Your task to perform on an android device: toggle pop-ups in chrome Image 0: 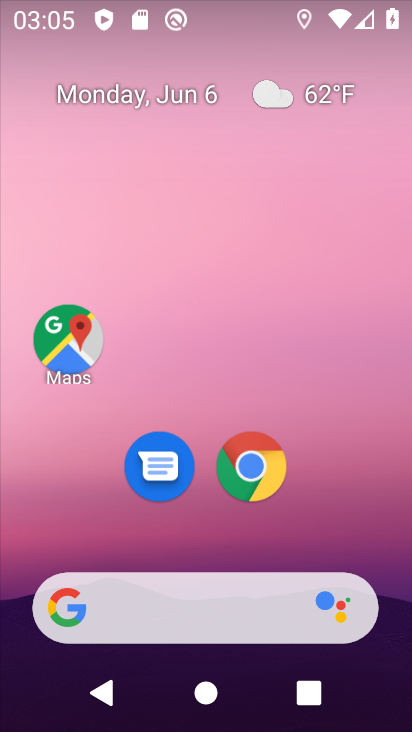
Step 0: click (253, 463)
Your task to perform on an android device: toggle pop-ups in chrome Image 1: 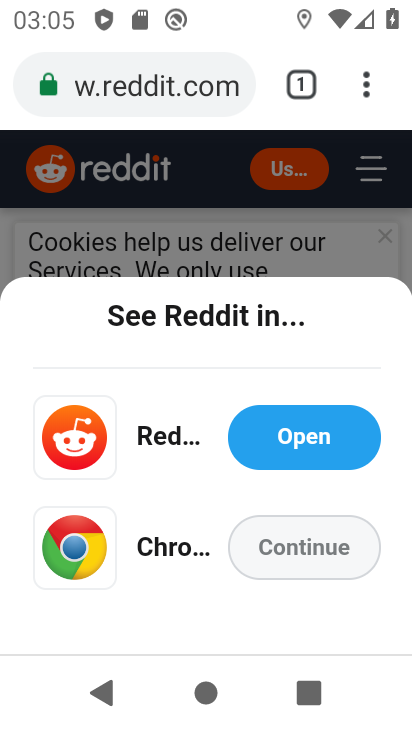
Step 1: click (363, 76)
Your task to perform on an android device: toggle pop-ups in chrome Image 2: 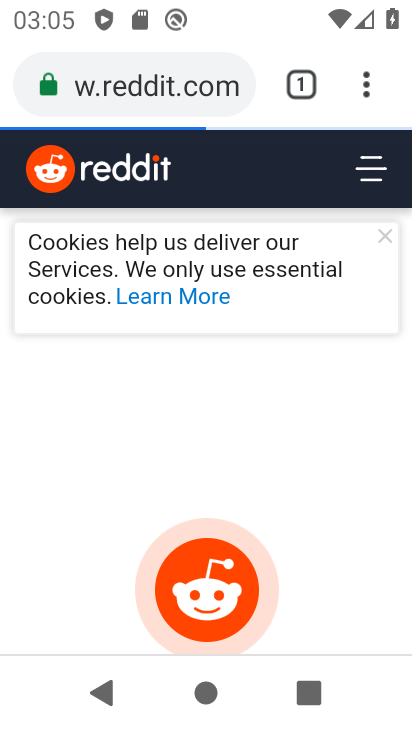
Step 2: drag from (364, 86) to (121, 517)
Your task to perform on an android device: toggle pop-ups in chrome Image 3: 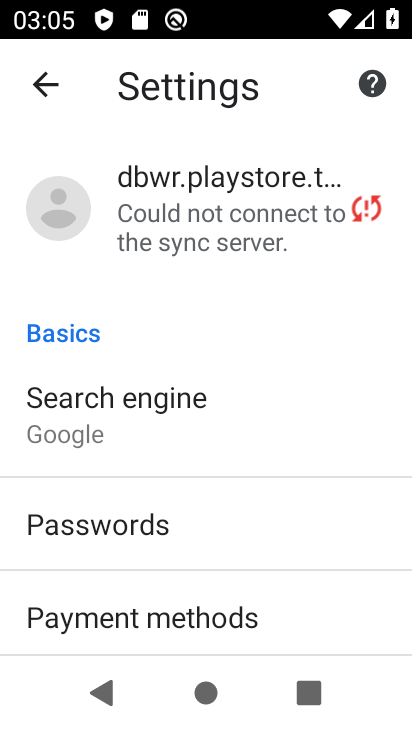
Step 3: drag from (221, 529) to (284, 128)
Your task to perform on an android device: toggle pop-ups in chrome Image 4: 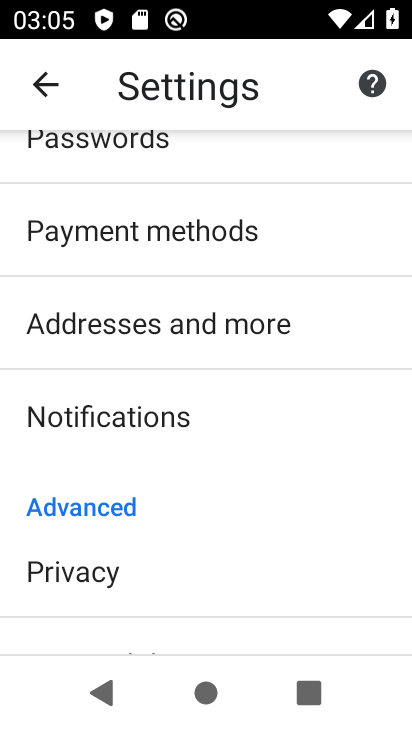
Step 4: drag from (220, 543) to (275, 175)
Your task to perform on an android device: toggle pop-ups in chrome Image 5: 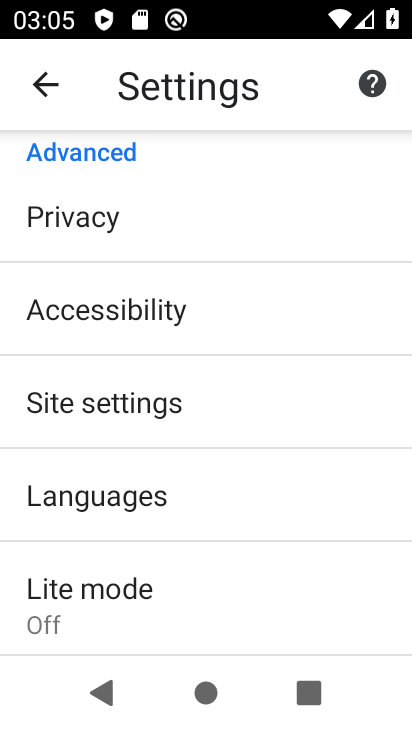
Step 5: click (162, 421)
Your task to perform on an android device: toggle pop-ups in chrome Image 6: 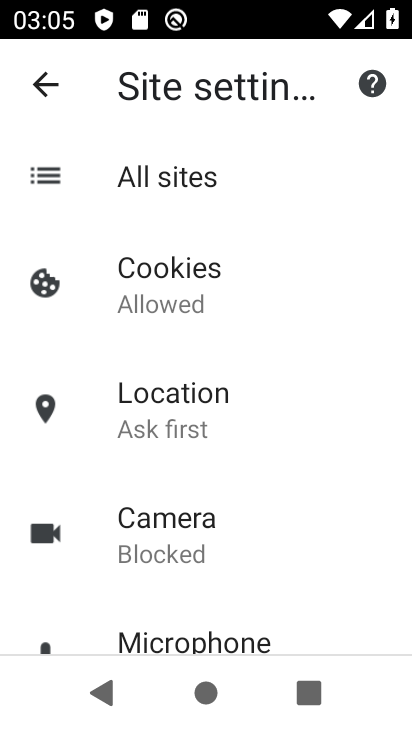
Step 6: drag from (297, 476) to (306, 147)
Your task to perform on an android device: toggle pop-ups in chrome Image 7: 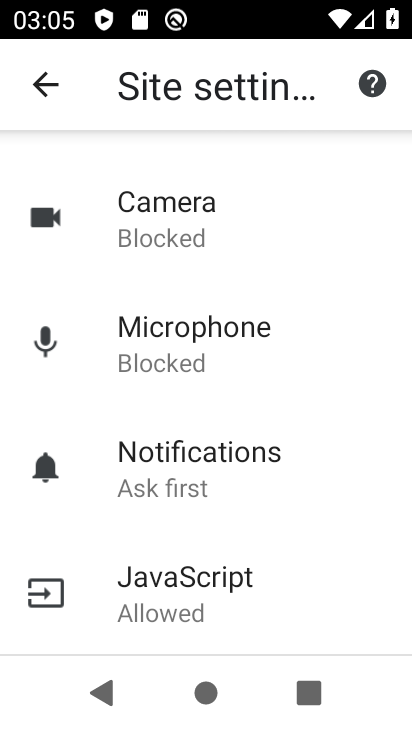
Step 7: drag from (270, 447) to (288, 175)
Your task to perform on an android device: toggle pop-ups in chrome Image 8: 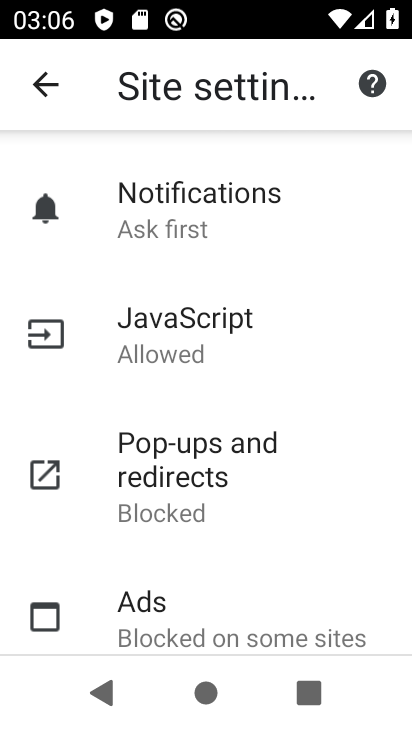
Step 8: click (199, 431)
Your task to perform on an android device: toggle pop-ups in chrome Image 9: 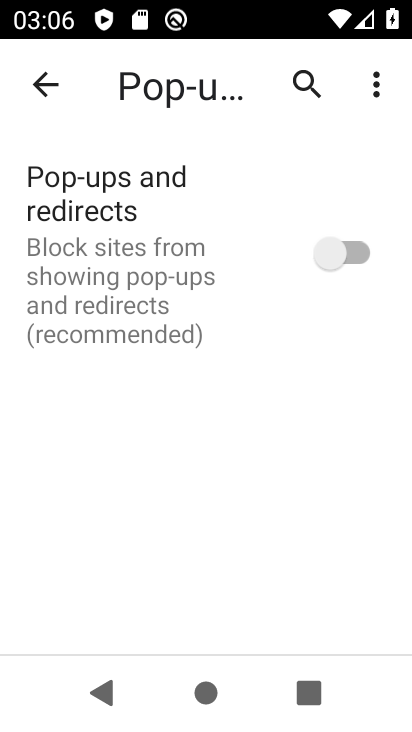
Step 9: click (306, 234)
Your task to perform on an android device: toggle pop-ups in chrome Image 10: 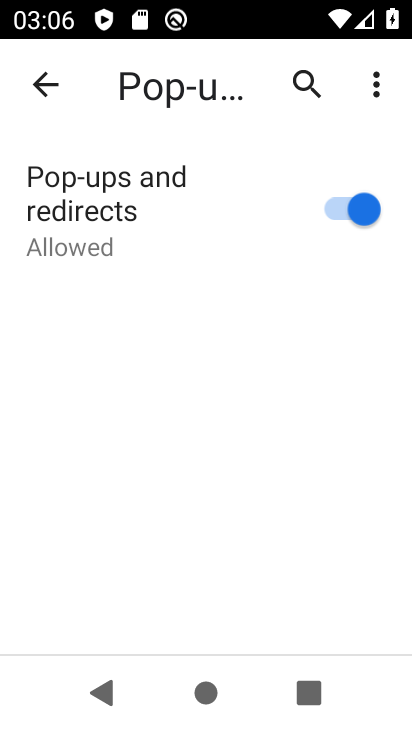
Step 10: task complete